Your task to perform on an android device: manage bookmarks in the chrome app Image 0: 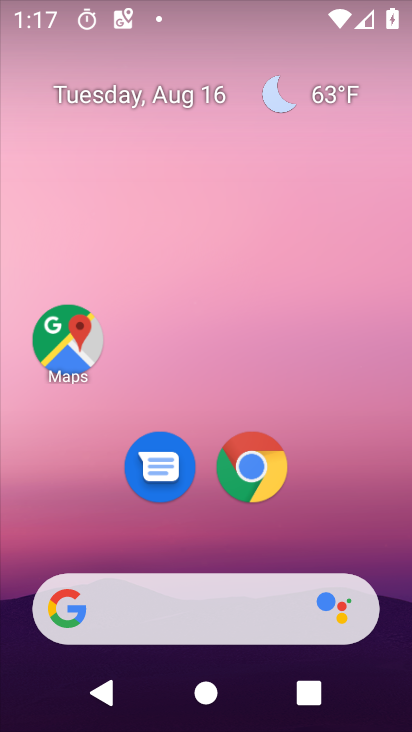
Step 0: press home button
Your task to perform on an android device: manage bookmarks in the chrome app Image 1: 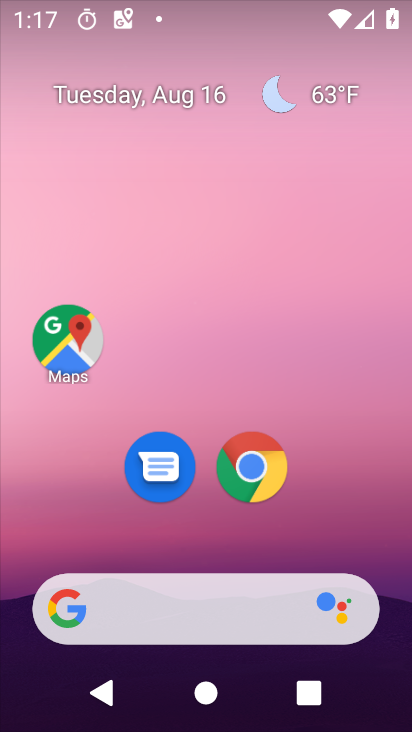
Step 1: drag from (352, 550) to (349, 155)
Your task to perform on an android device: manage bookmarks in the chrome app Image 2: 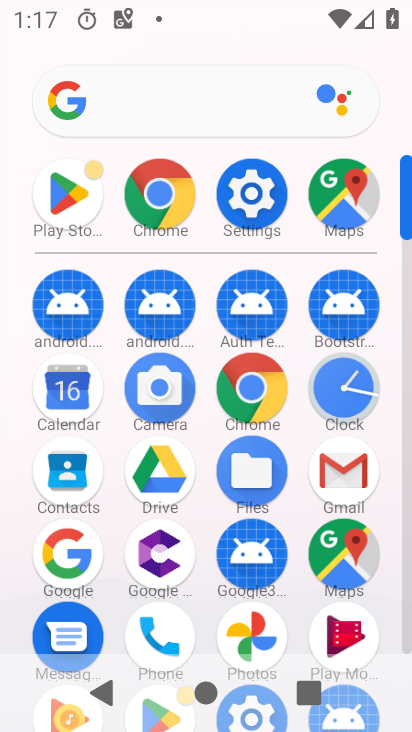
Step 2: click (271, 401)
Your task to perform on an android device: manage bookmarks in the chrome app Image 3: 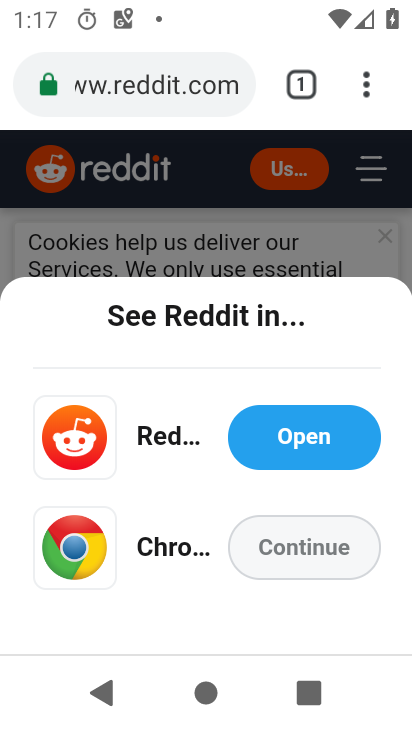
Step 3: click (369, 89)
Your task to perform on an android device: manage bookmarks in the chrome app Image 4: 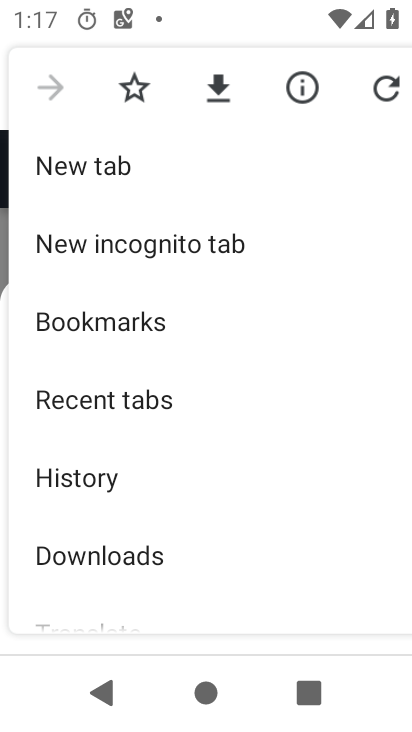
Step 4: click (151, 321)
Your task to perform on an android device: manage bookmarks in the chrome app Image 5: 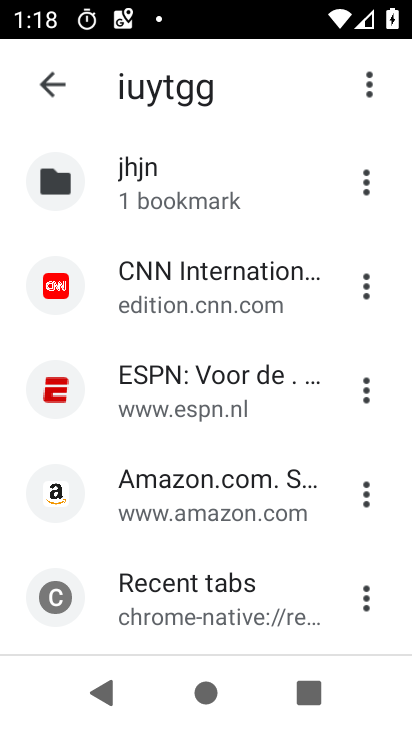
Step 5: click (367, 189)
Your task to perform on an android device: manage bookmarks in the chrome app Image 6: 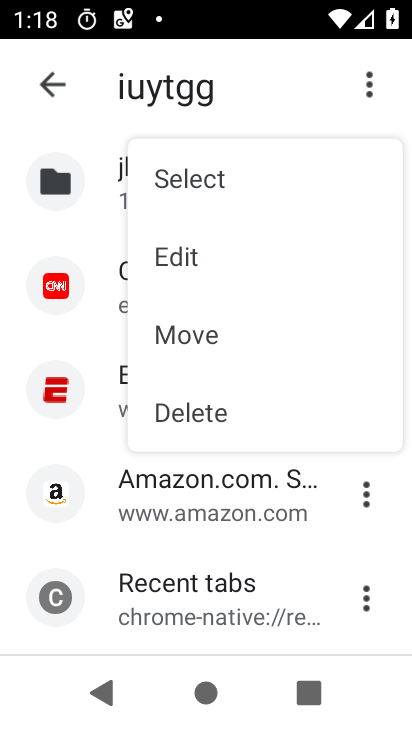
Step 6: click (204, 246)
Your task to perform on an android device: manage bookmarks in the chrome app Image 7: 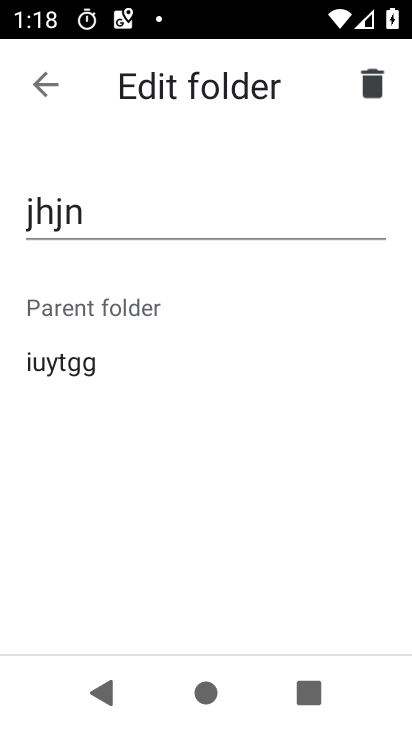
Step 7: click (124, 218)
Your task to perform on an android device: manage bookmarks in the chrome app Image 8: 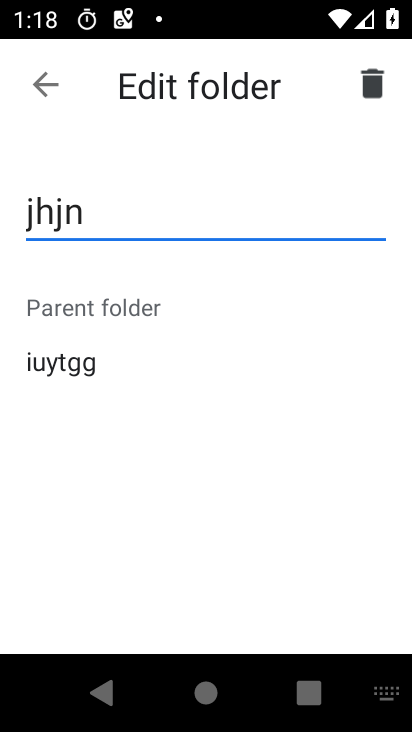
Step 8: type "n"
Your task to perform on an android device: manage bookmarks in the chrome app Image 9: 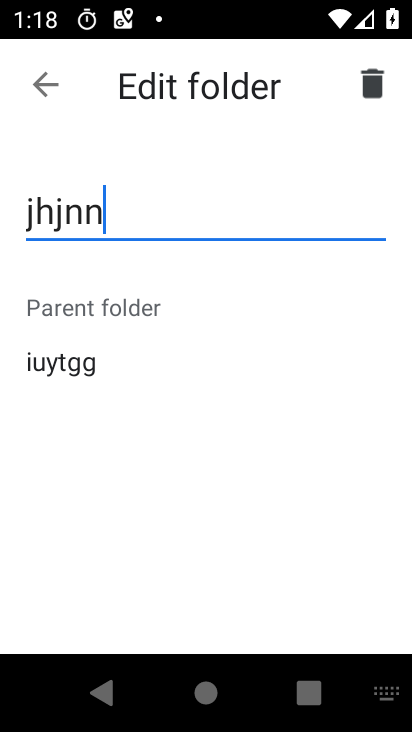
Step 9: click (36, 80)
Your task to perform on an android device: manage bookmarks in the chrome app Image 10: 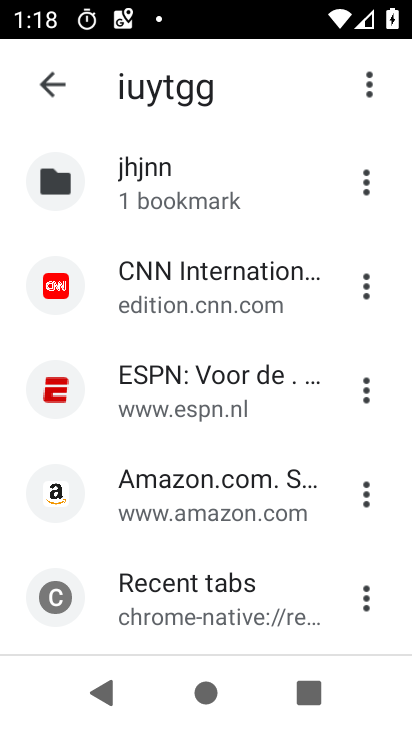
Step 10: task complete